Your task to perform on an android device: change notification settings in the gmail app Image 0: 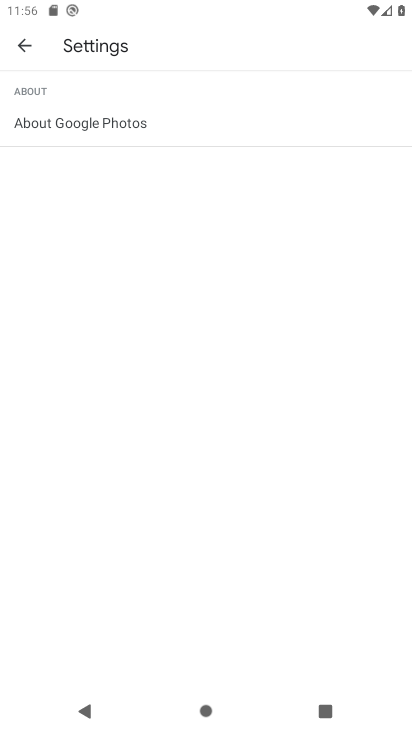
Step 0: press home button
Your task to perform on an android device: change notification settings in the gmail app Image 1: 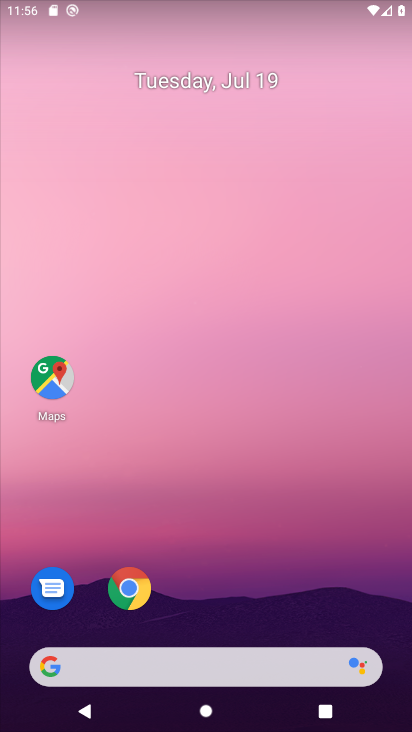
Step 1: drag from (235, 594) to (199, 99)
Your task to perform on an android device: change notification settings in the gmail app Image 2: 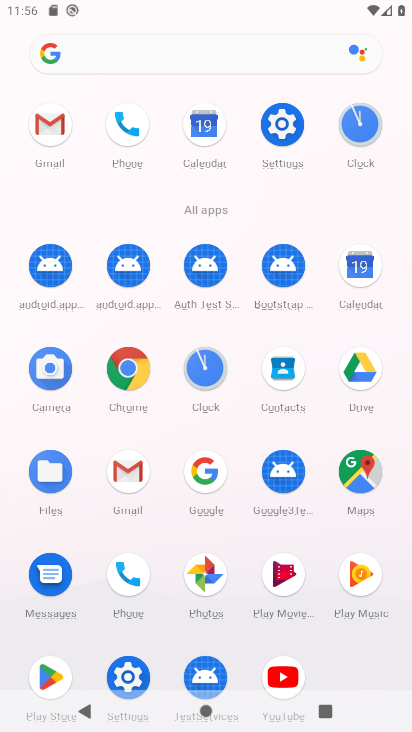
Step 2: click (134, 490)
Your task to perform on an android device: change notification settings in the gmail app Image 3: 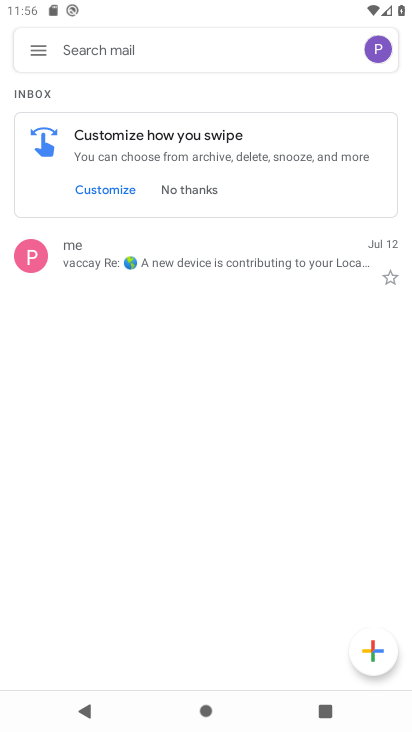
Step 3: click (28, 61)
Your task to perform on an android device: change notification settings in the gmail app Image 4: 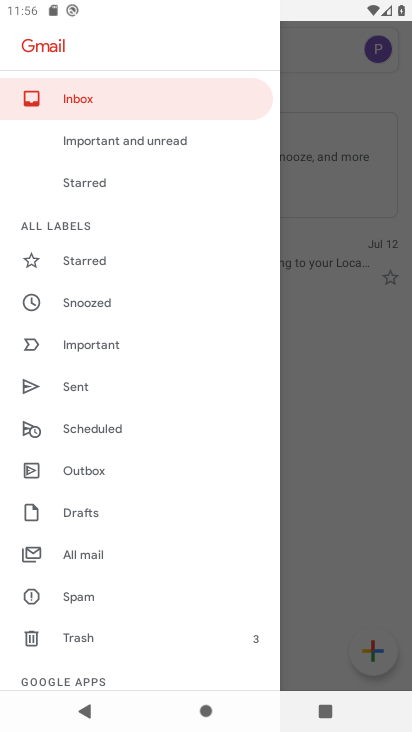
Step 4: drag from (87, 666) to (116, 302)
Your task to perform on an android device: change notification settings in the gmail app Image 5: 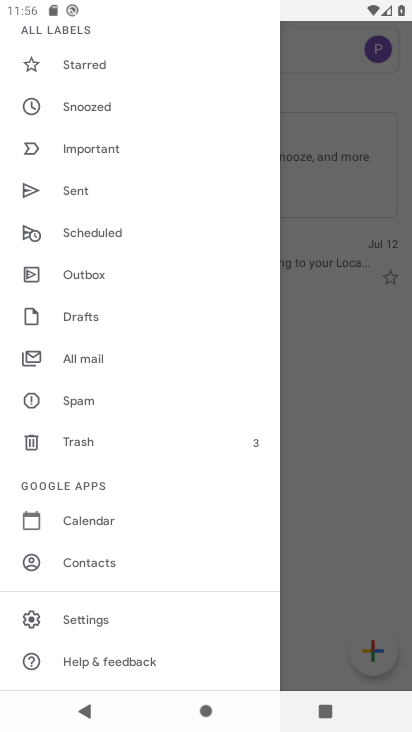
Step 5: click (79, 627)
Your task to perform on an android device: change notification settings in the gmail app Image 6: 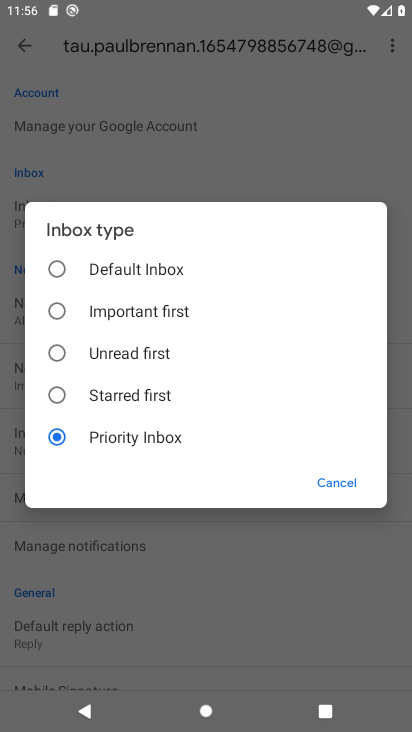
Step 6: click (354, 480)
Your task to perform on an android device: change notification settings in the gmail app Image 7: 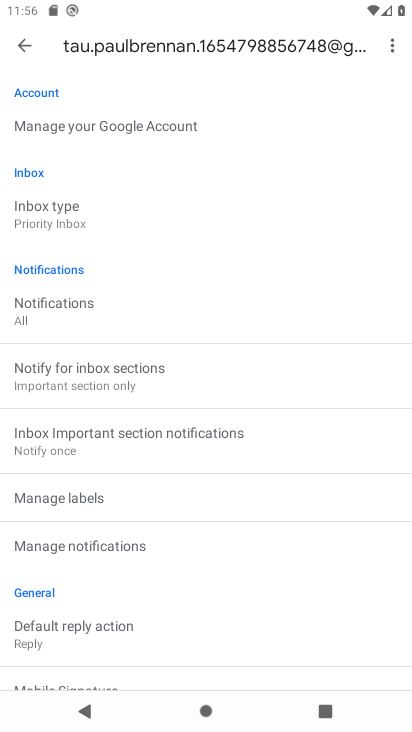
Step 7: click (15, 45)
Your task to perform on an android device: change notification settings in the gmail app Image 8: 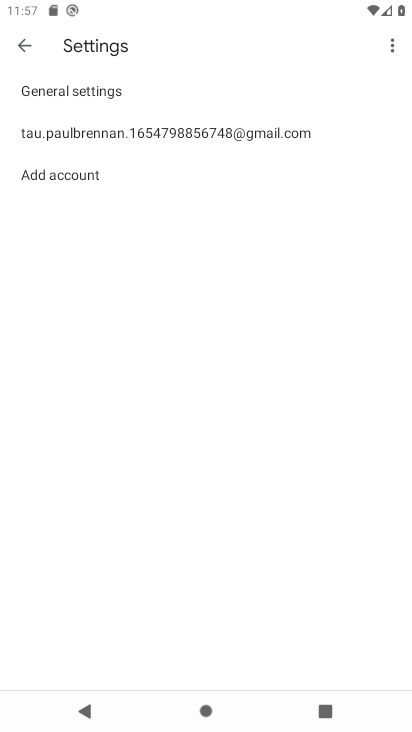
Step 8: click (118, 90)
Your task to perform on an android device: change notification settings in the gmail app Image 9: 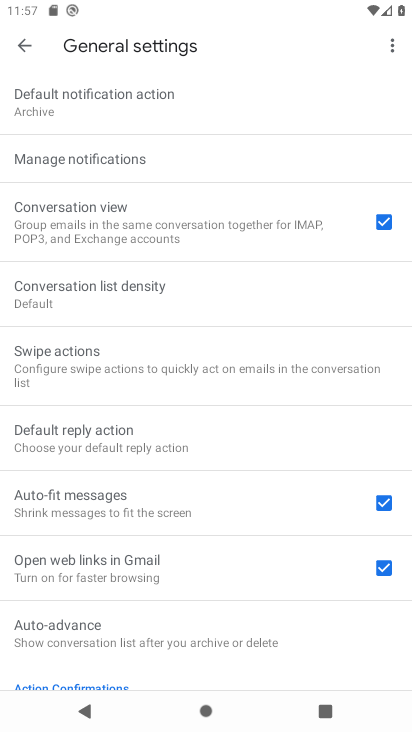
Step 9: click (81, 156)
Your task to perform on an android device: change notification settings in the gmail app Image 10: 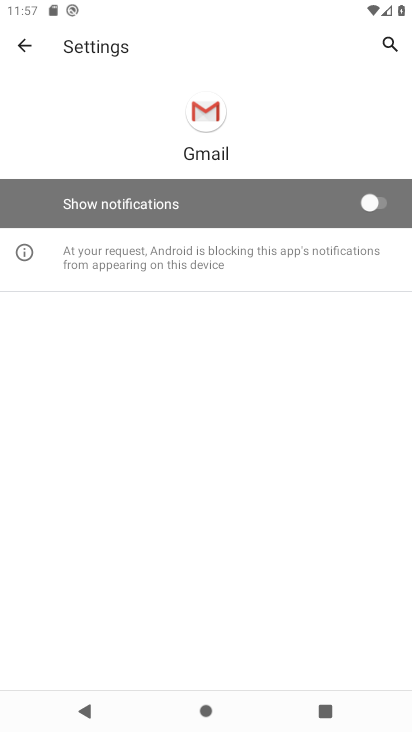
Step 10: click (356, 200)
Your task to perform on an android device: change notification settings in the gmail app Image 11: 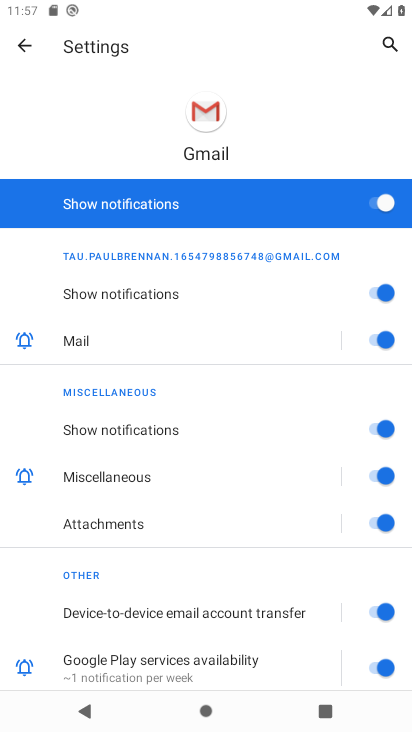
Step 11: task complete